Your task to perform on an android device: Search for the best rated mechanical keyboard on Amazon. Image 0: 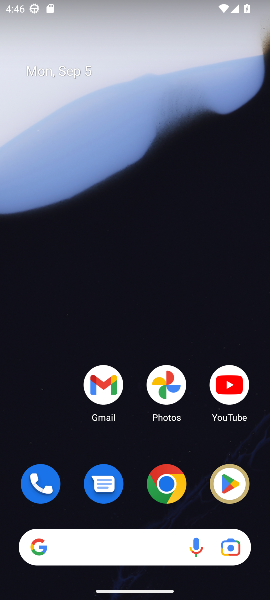
Step 0: click (174, 481)
Your task to perform on an android device: Search for the best rated mechanical keyboard on Amazon. Image 1: 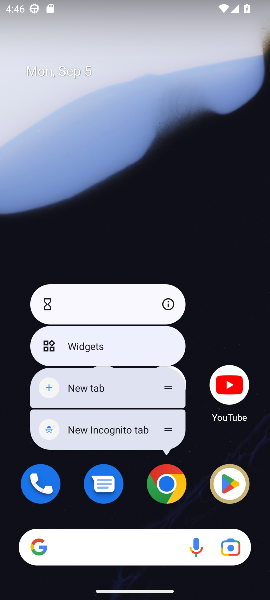
Step 1: click (163, 478)
Your task to perform on an android device: Search for the best rated mechanical keyboard on Amazon. Image 2: 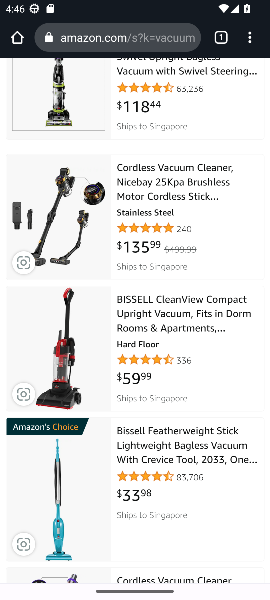
Step 2: drag from (144, 109) to (108, 537)
Your task to perform on an android device: Search for the best rated mechanical keyboard on Amazon. Image 3: 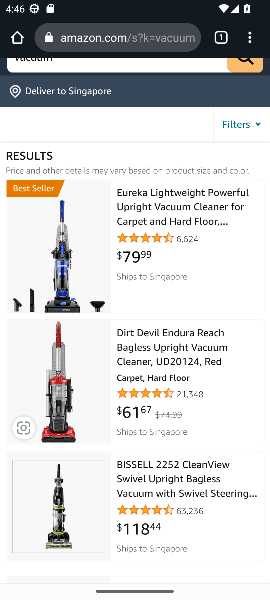
Step 3: drag from (135, 191) to (111, 482)
Your task to perform on an android device: Search for the best rated mechanical keyboard on Amazon. Image 4: 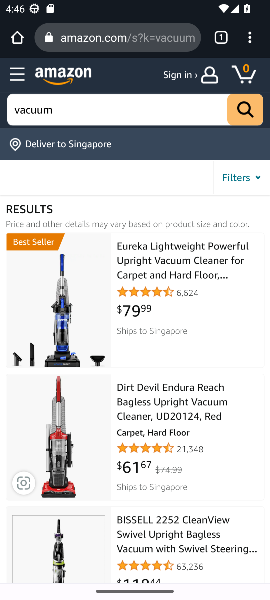
Step 4: click (194, 105)
Your task to perform on an android device: Search for the best rated mechanical keyboard on Amazon. Image 5: 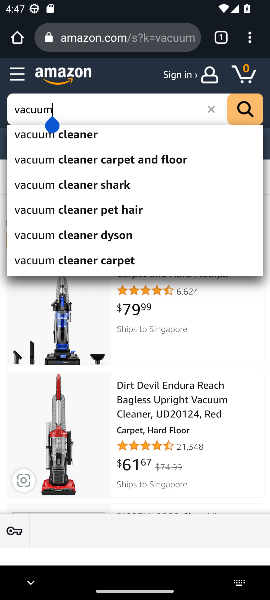
Step 5: click (210, 104)
Your task to perform on an android device: Search for the best rated mechanical keyboard on Amazon. Image 6: 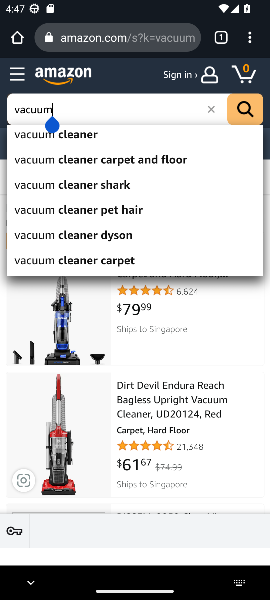
Step 6: click (213, 106)
Your task to perform on an android device: Search for the best rated mechanical keyboard on Amazon. Image 7: 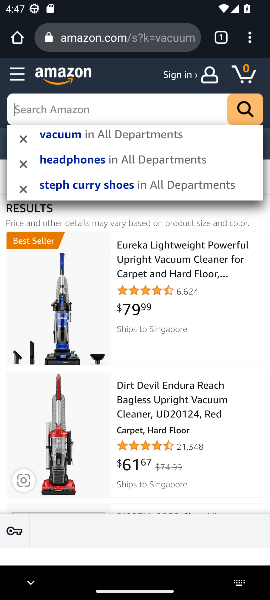
Step 7: type "mechanical keyboard"
Your task to perform on an android device: Search for the best rated mechanical keyboard on Amazon. Image 8: 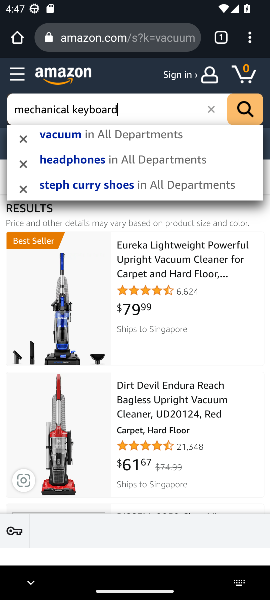
Step 8: press enter
Your task to perform on an android device: Search for the best rated mechanical keyboard on Amazon. Image 9: 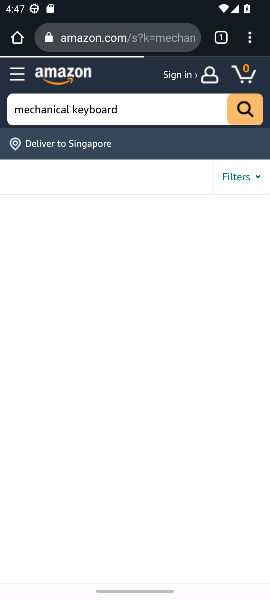
Step 9: click (248, 107)
Your task to perform on an android device: Search for the best rated mechanical keyboard on Amazon. Image 10: 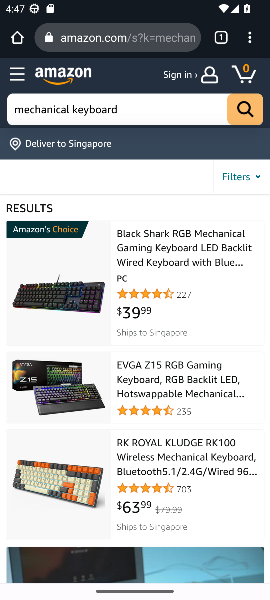
Step 10: task complete